Your task to perform on an android device: Play the last video I watched on Youtube Image 0: 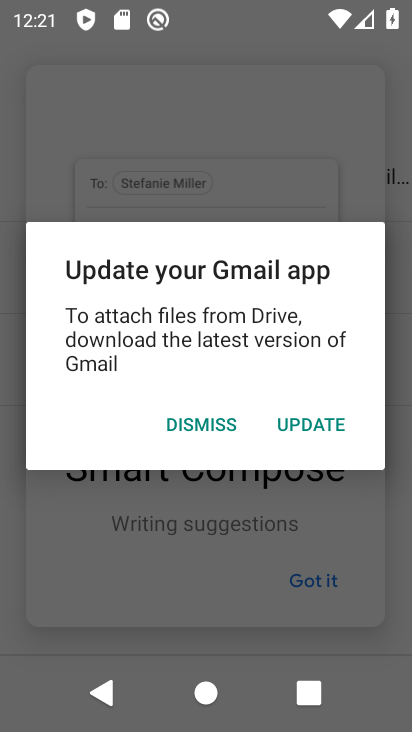
Step 0: press home button
Your task to perform on an android device: Play the last video I watched on Youtube Image 1: 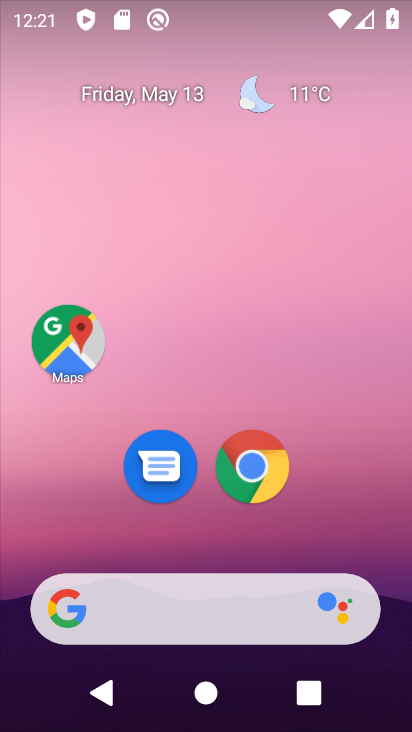
Step 1: drag from (361, 545) to (276, 198)
Your task to perform on an android device: Play the last video I watched on Youtube Image 2: 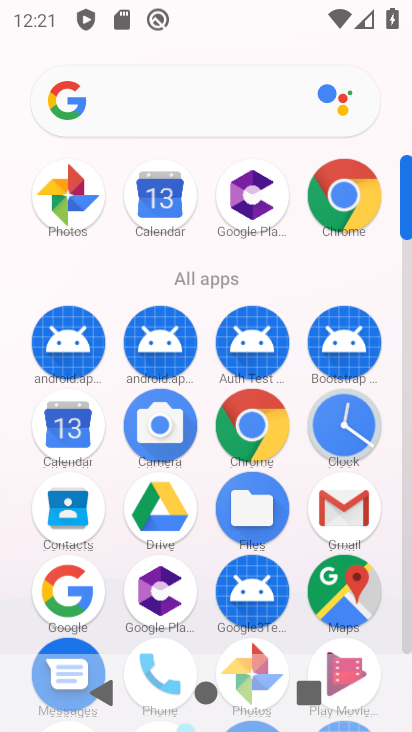
Step 2: drag from (273, 279) to (246, 1)
Your task to perform on an android device: Play the last video I watched on Youtube Image 3: 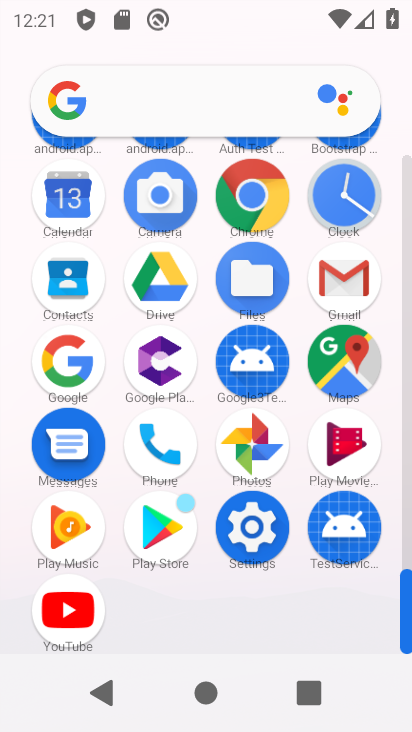
Step 3: click (57, 614)
Your task to perform on an android device: Play the last video I watched on Youtube Image 4: 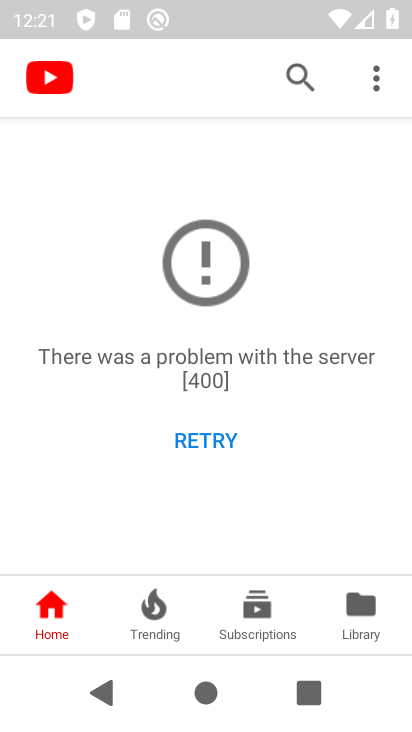
Step 4: click (357, 607)
Your task to perform on an android device: Play the last video I watched on Youtube Image 5: 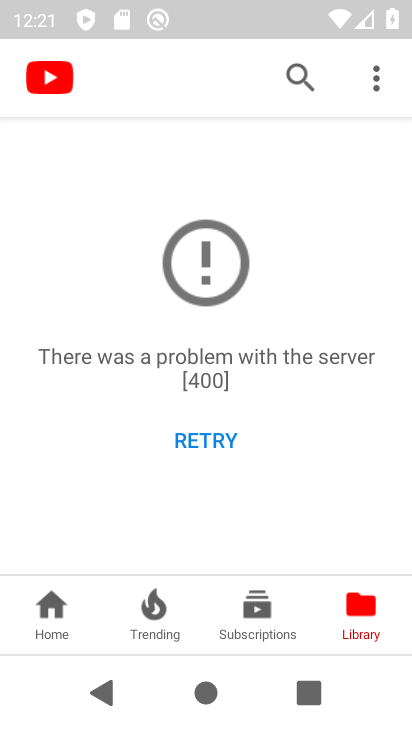
Step 5: task complete